Your task to perform on an android device: uninstall "Google Photos" Image 0: 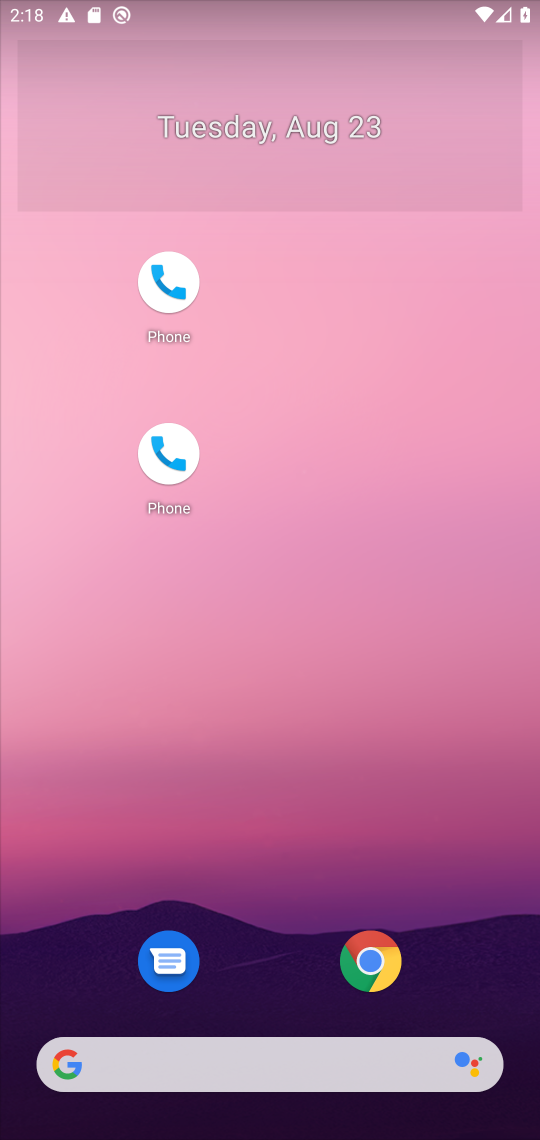
Step 0: press home button
Your task to perform on an android device: uninstall "Google Photos" Image 1: 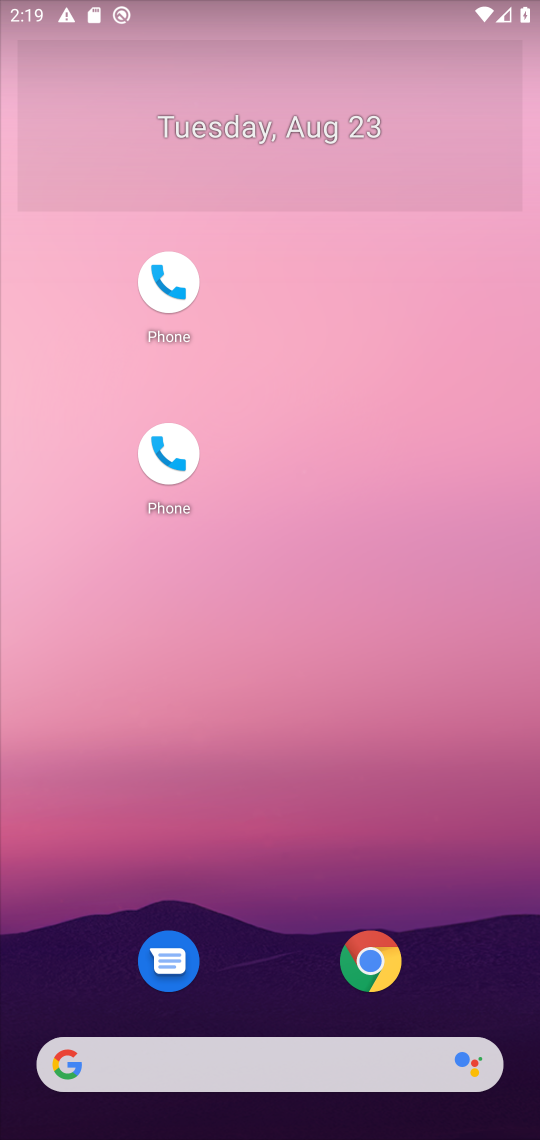
Step 1: drag from (265, 979) to (334, 94)
Your task to perform on an android device: uninstall "Google Photos" Image 2: 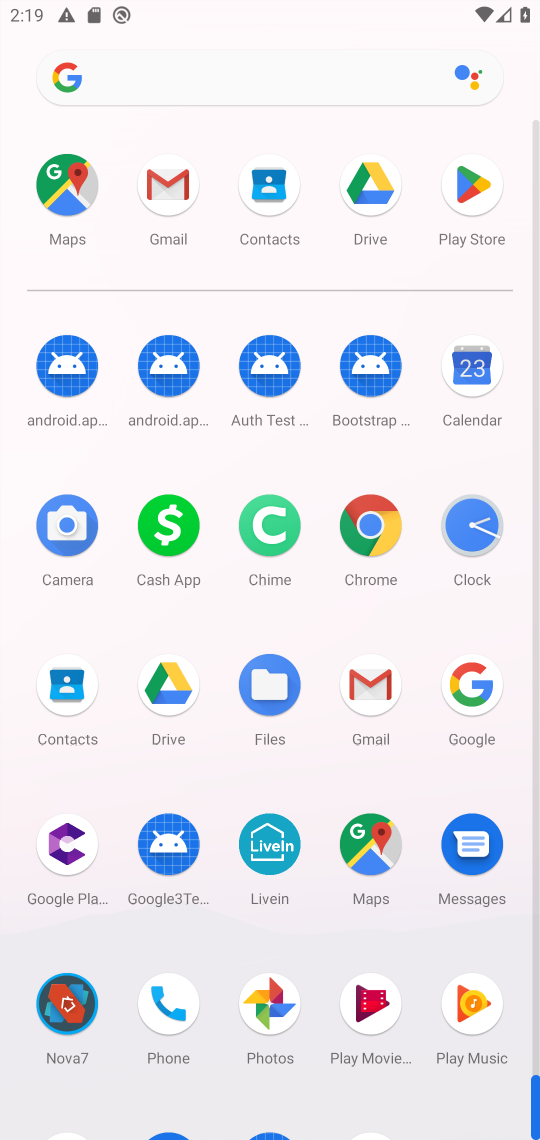
Step 2: click (443, 171)
Your task to perform on an android device: uninstall "Google Photos" Image 3: 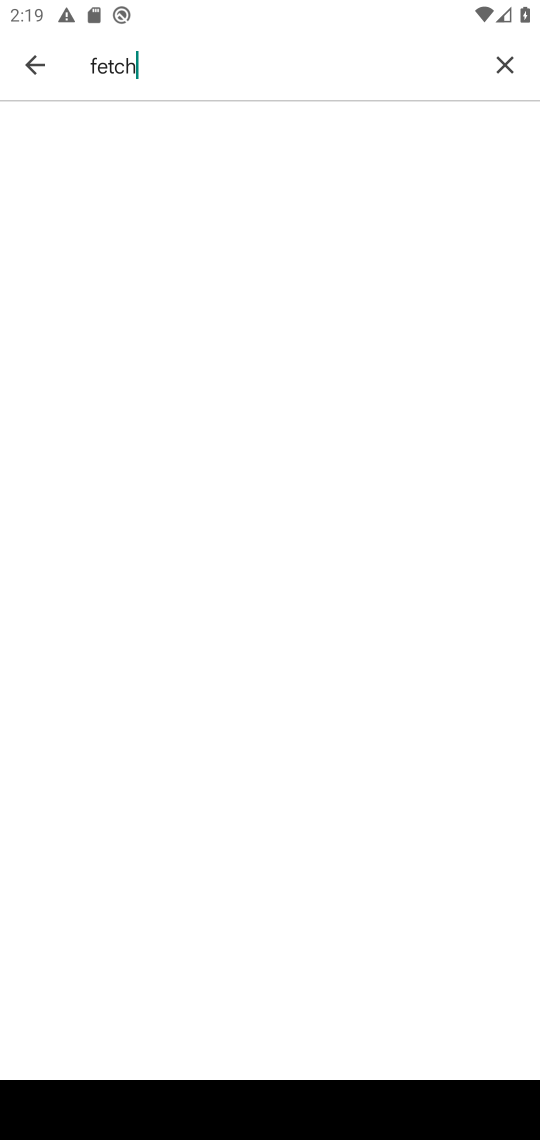
Step 3: click (492, 79)
Your task to perform on an android device: uninstall "Google Photos" Image 4: 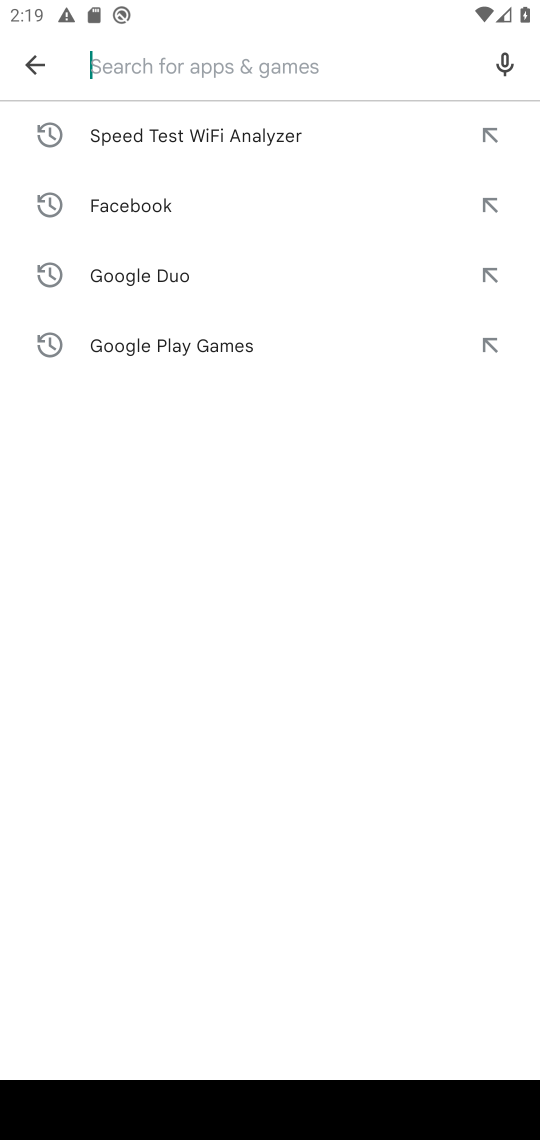
Step 4: type "google phote"
Your task to perform on an android device: uninstall "Google Photos" Image 5: 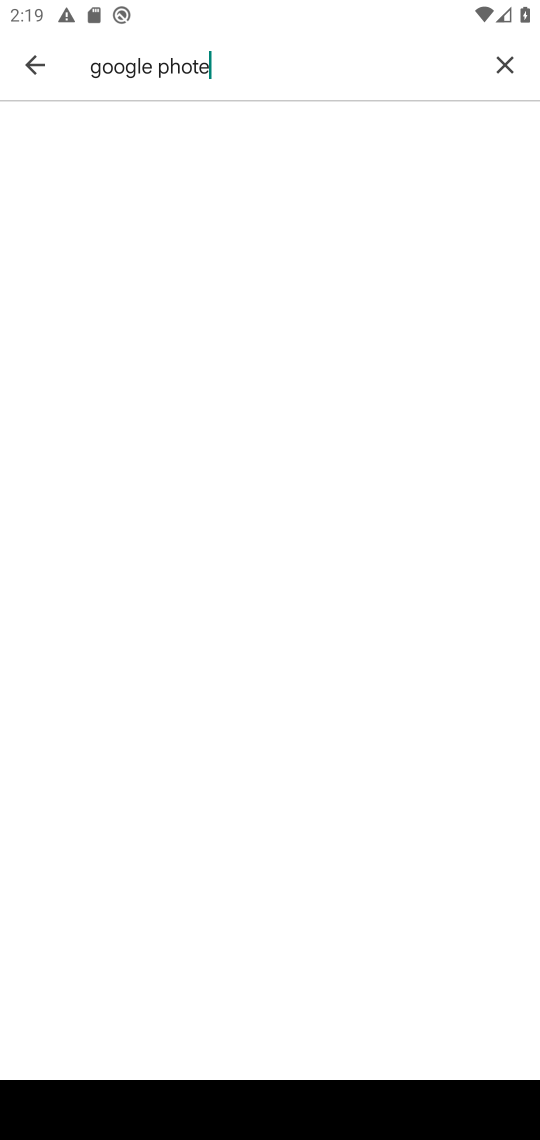
Step 5: task complete